Your task to perform on an android device: turn off airplane mode Image 0: 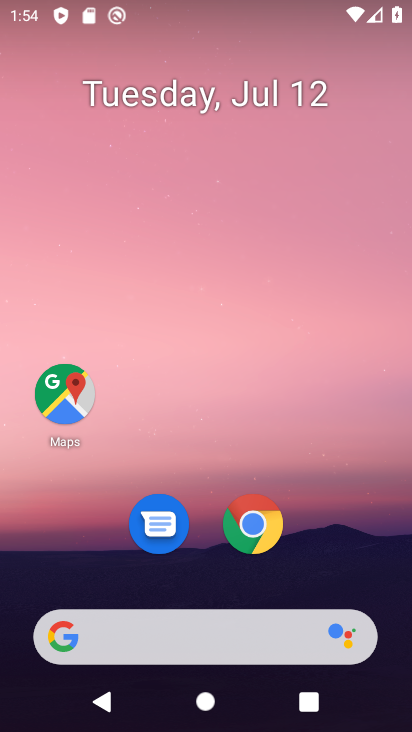
Step 0: drag from (332, 484) to (295, 27)
Your task to perform on an android device: turn off airplane mode Image 1: 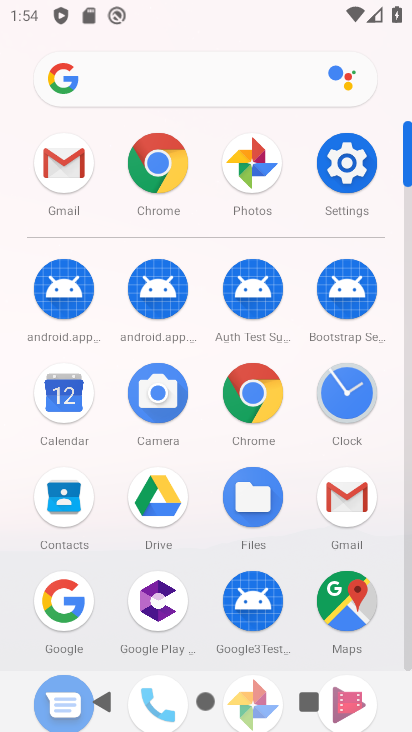
Step 1: click (342, 163)
Your task to perform on an android device: turn off airplane mode Image 2: 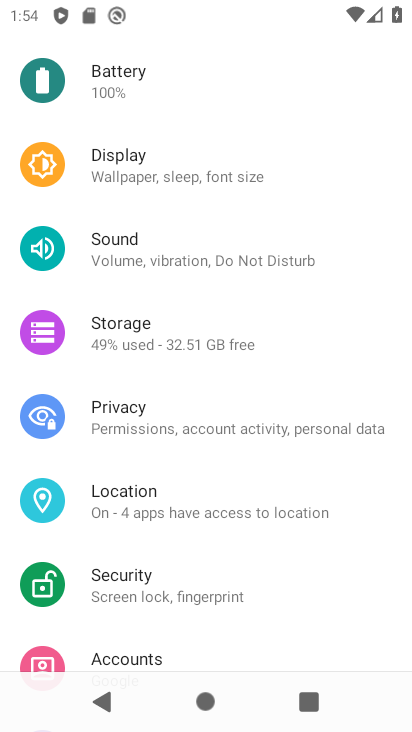
Step 2: drag from (228, 143) to (260, 582)
Your task to perform on an android device: turn off airplane mode Image 3: 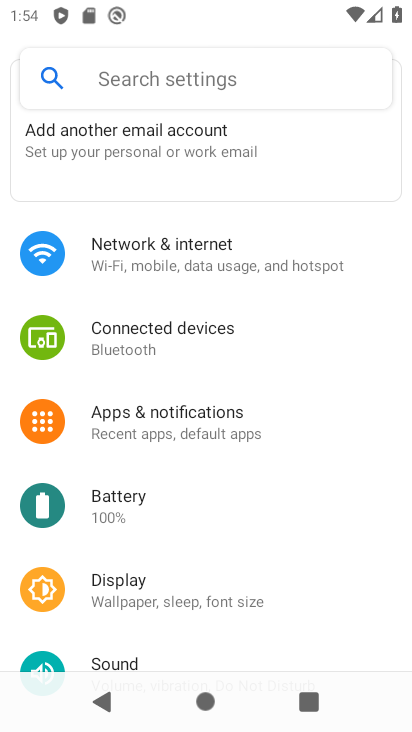
Step 3: click (263, 263)
Your task to perform on an android device: turn off airplane mode Image 4: 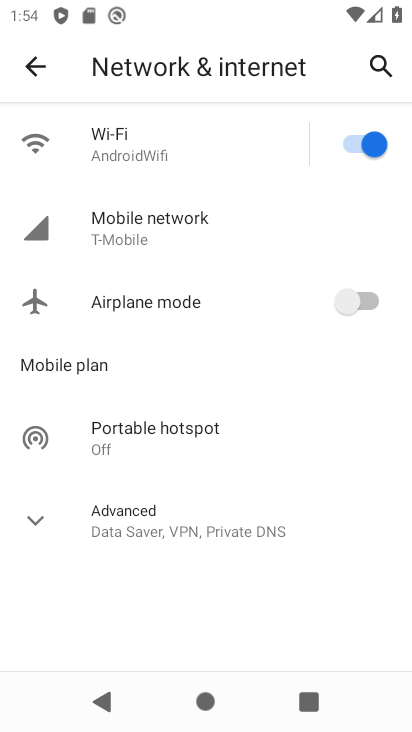
Step 4: task complete